Your task to perform on an android device: turn on the 24-hour format for clock Image 0: 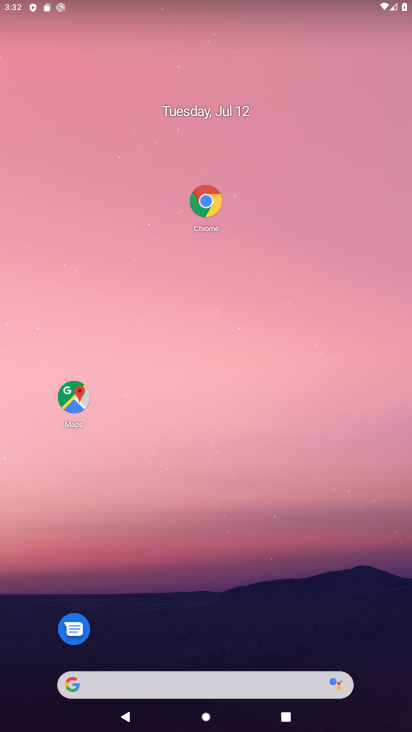
Step 0: drag from (161, 661) to (270, 143)
Your task to perform on an android device: turn on the 24-hour format for clock Image 1: 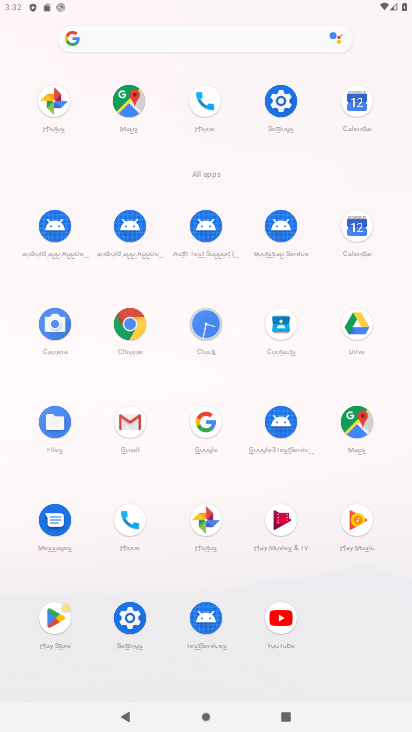
Step 1: click (201, 333)
Your task to perform on an android device: turn on the 24-hour format for clock Image 2: 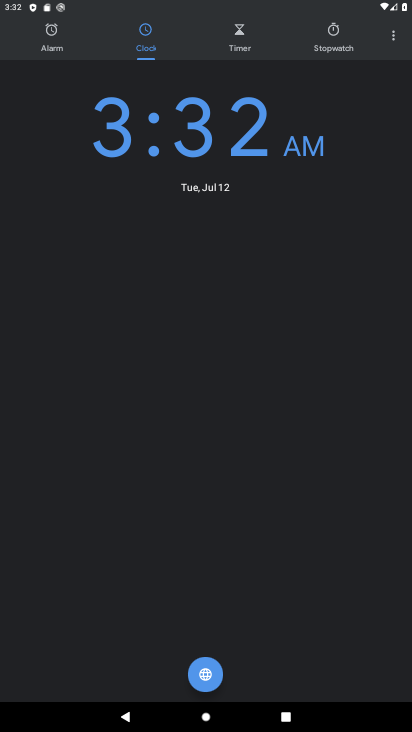
Step 2: click (387, 41)
Your task to perform on an android device: turn on the 24-hour format for clock Image 3: 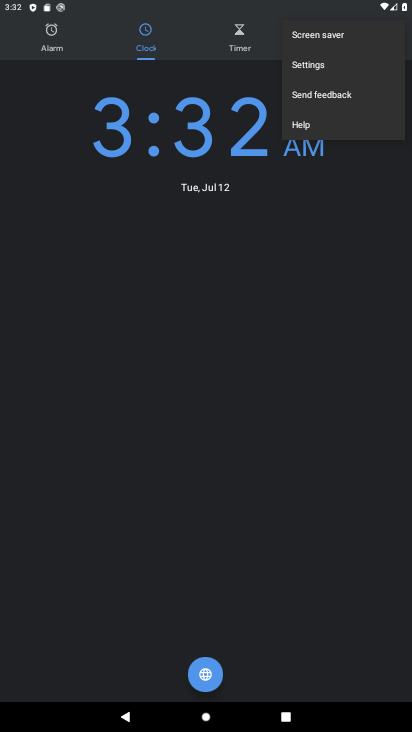
Step 3: click (355, 73)
Your task to perform on an android device: turn on the 24-hour format for clock Image 4: 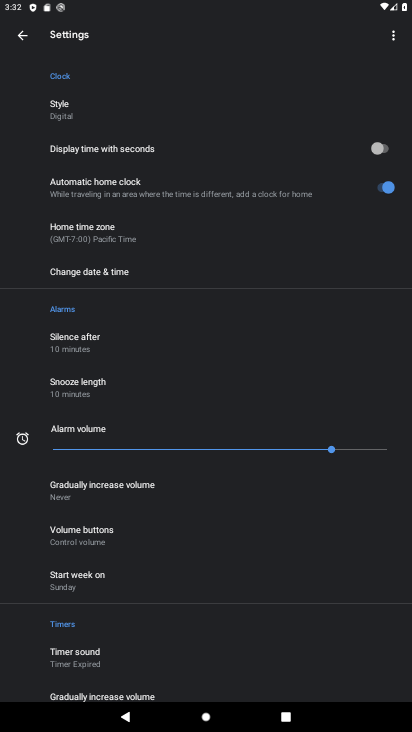
Step 4: click (132, 275)
Your task to perform on an android device: turn on the 24-hour format for clock Image 5: 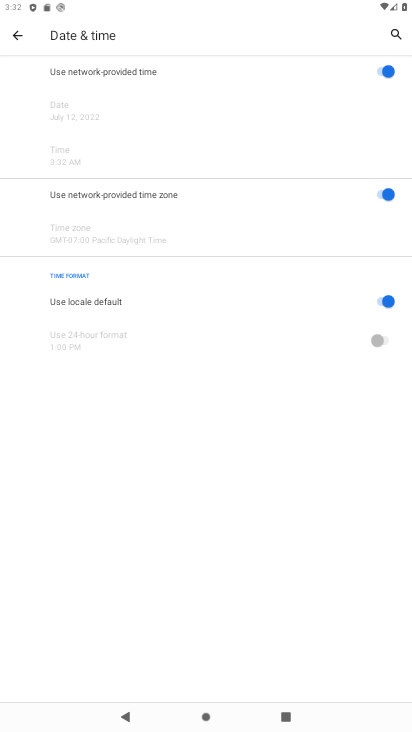
Step 5: click (382, 300)
Your task to perform on an android device: turn on the 24-hour format for clock Image 6: 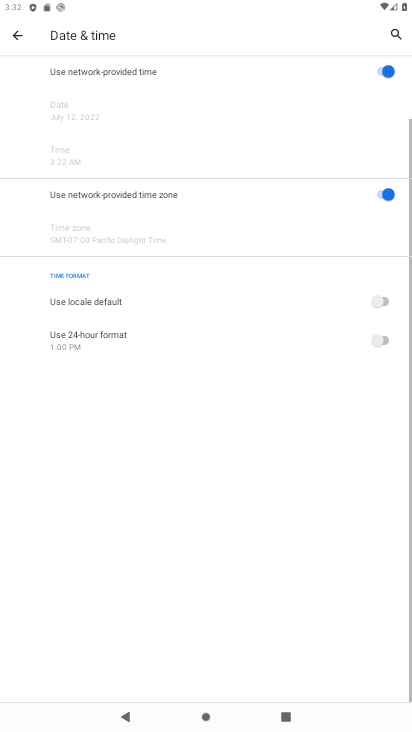
Step 6: click (384, 329)
Your task to perform on an android device: turn on the 24-hour format for clock Image 7: 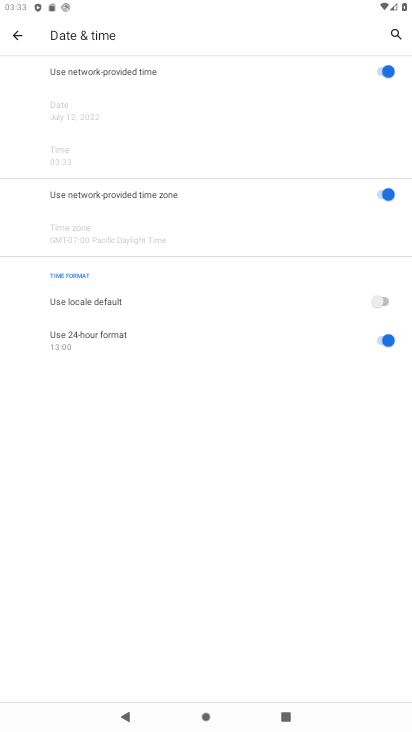
Step 7: task complete